Your task to perform on an android device: Search for a dining table on crateandbarrel.com Image 0: 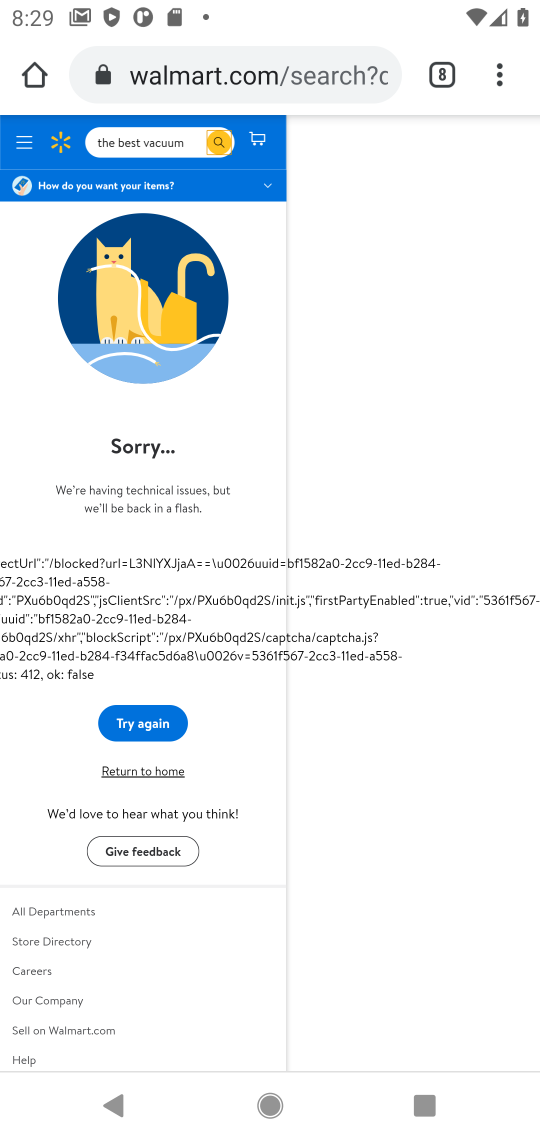
Step 0: press home button
Your task to perform on an android device: Search for a dining table on crateandbarrel.com Image 1: 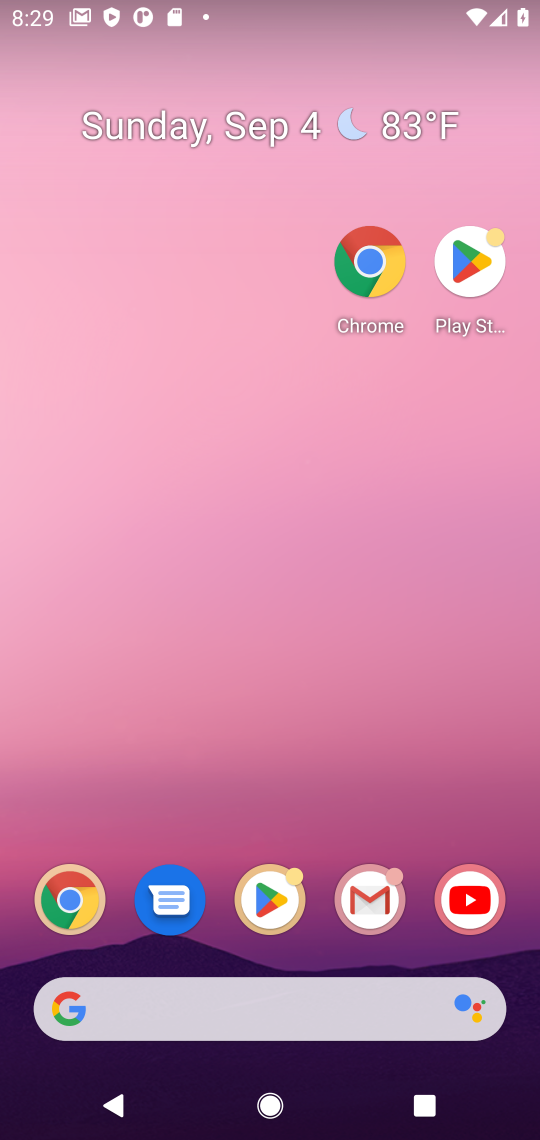
Step 1: click (254, 980)
Your task to perform on an android device: Search for a dining table on crateandbarrel.com Image 2: 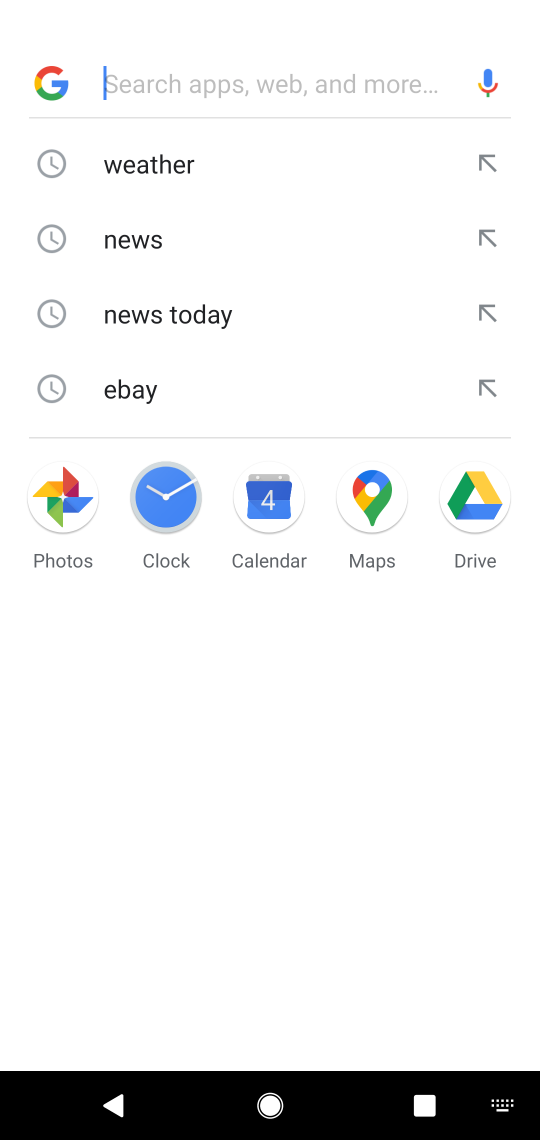
Step 2: type " crateandbarrel.com"
Your task to perform on an android device: Search for a dining table on crateandbarrel.com Image 3: 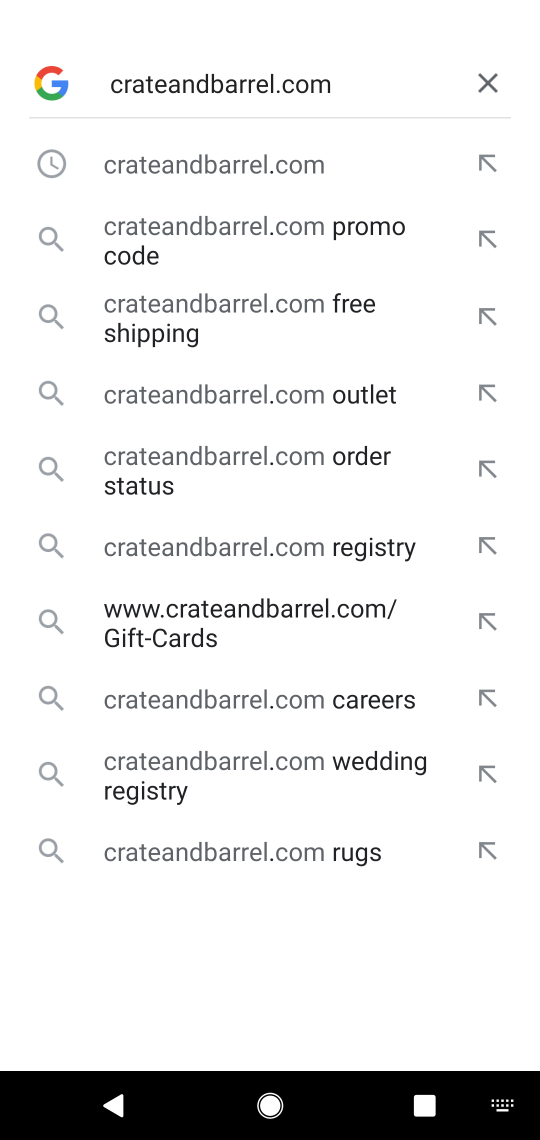
Step 3: click (195, 163)
Your task to perform on an android device: Search for a dining table on crateandbarrel.com Image 4: 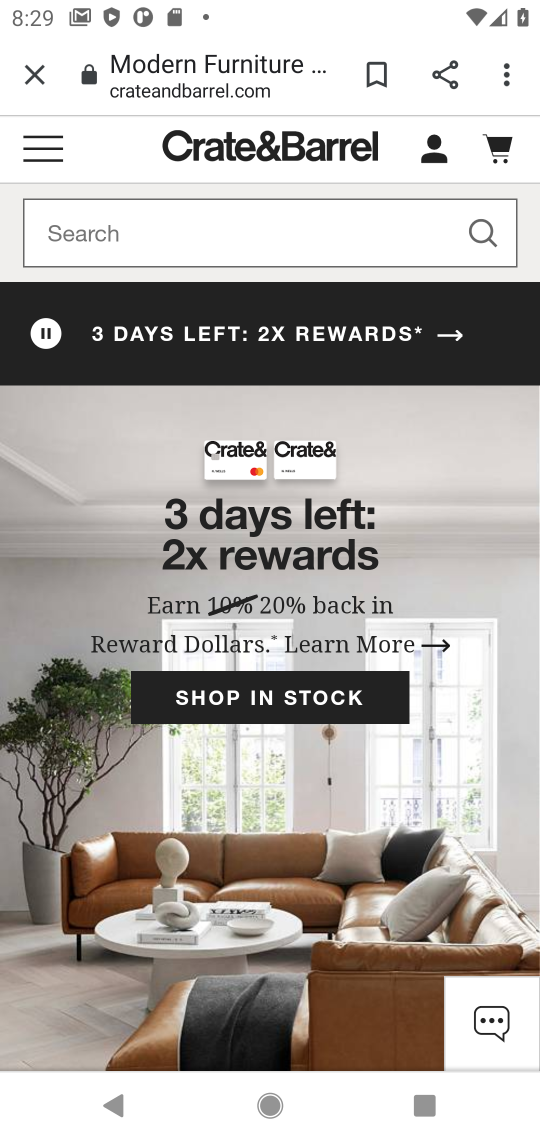
Step 4: click (212, 240)
Your task to perform on an android device: Search for a dining table on crateandbarrel.com Image 5: 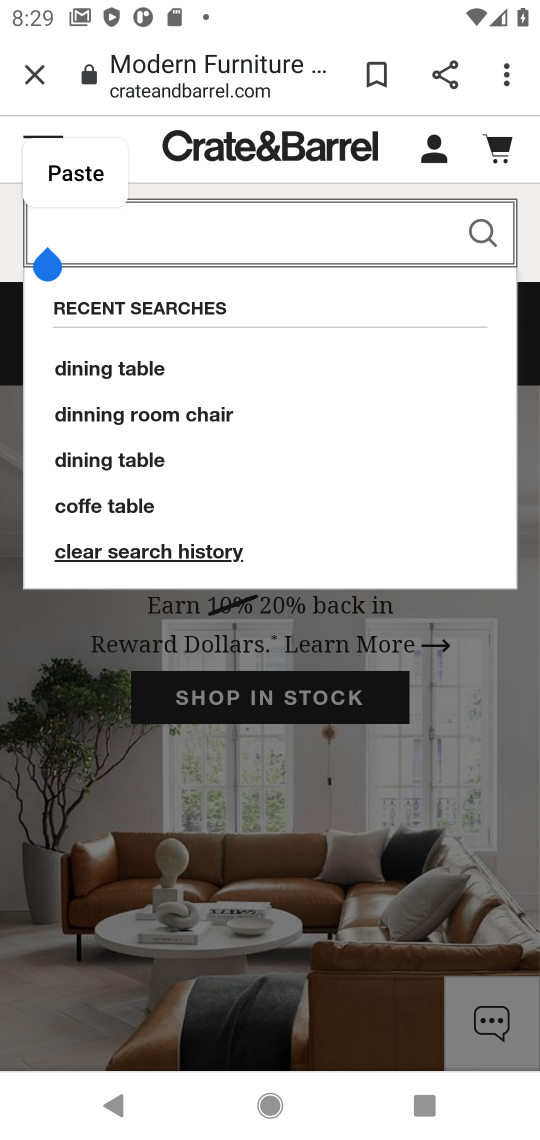
Step 5: click (104, 364)
Your task to perform on an android device: Search for a dining table on crateandbarrel.com Image 6: 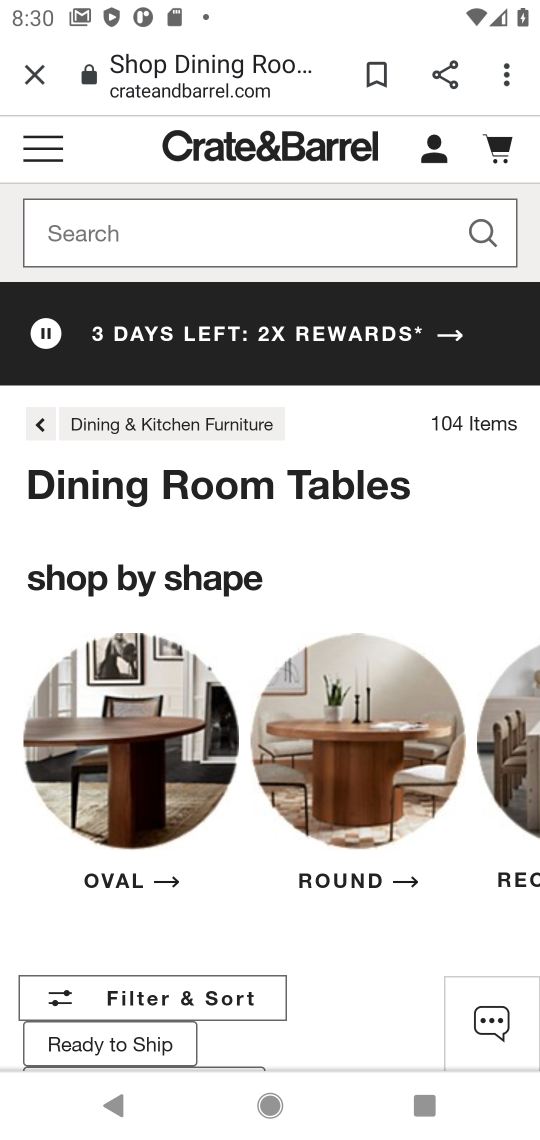
Step 6: click (163, 254)
Your task to perform on an android device: Search for a dining table on crateandbarrel.com Image 7: 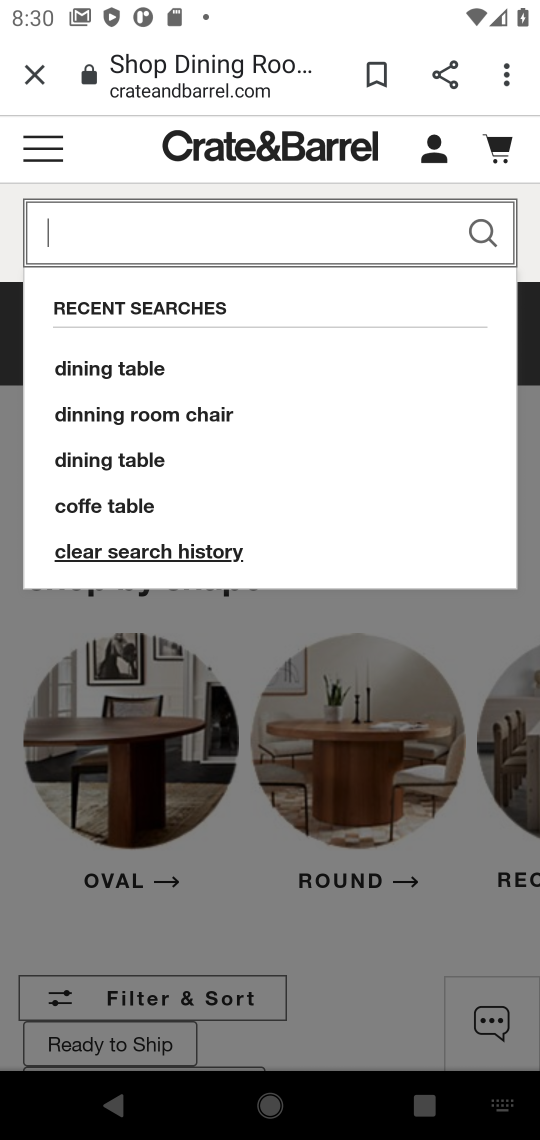
Step 7: click (131, 375)
Your task to perform on an android device: Search for a dining table on crateandbarrel.com Image 8: 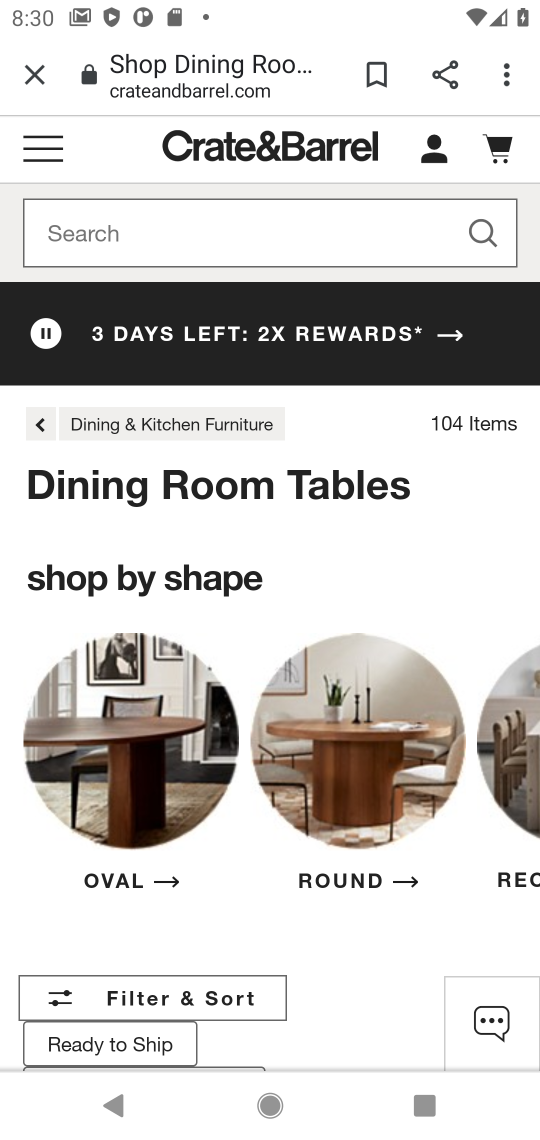
Step 8: task complete